Your task to perform on an android device: Show me popular videos on Youtube Image 0: 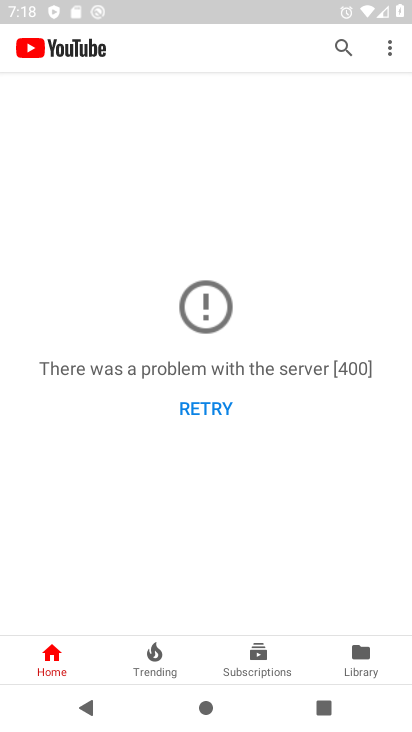
Step 0: task impossible